Your task to perform on an android device: set the stopwatch Image 0: 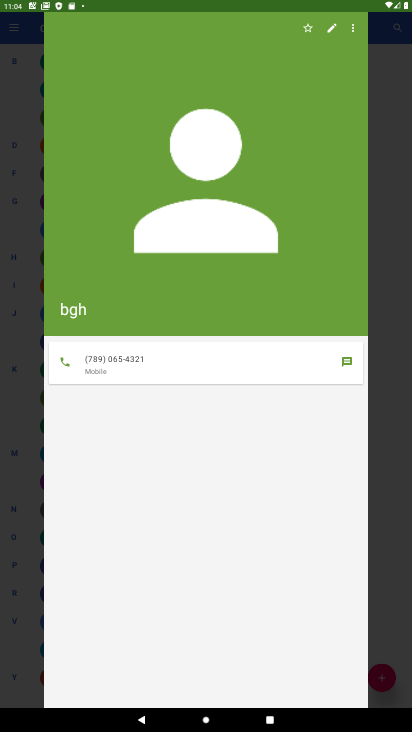
Step 0: press home button
Your task to perform on an android device: set the stopwatch Image 1: 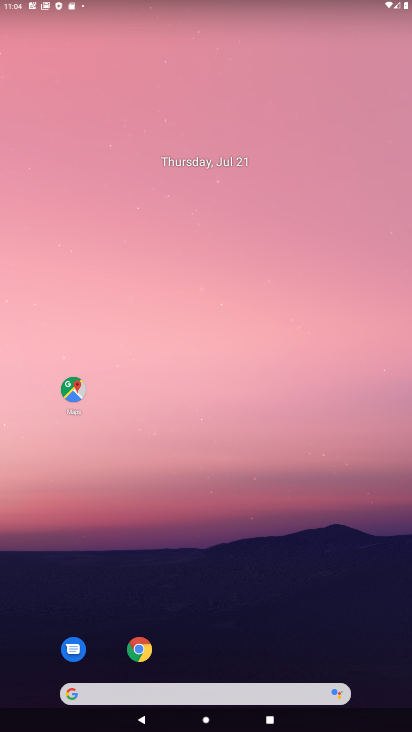
Step 1: drag from (264, 625) to (244, 35)
Your task to perform on an android device: set the stopwatch Image 2: 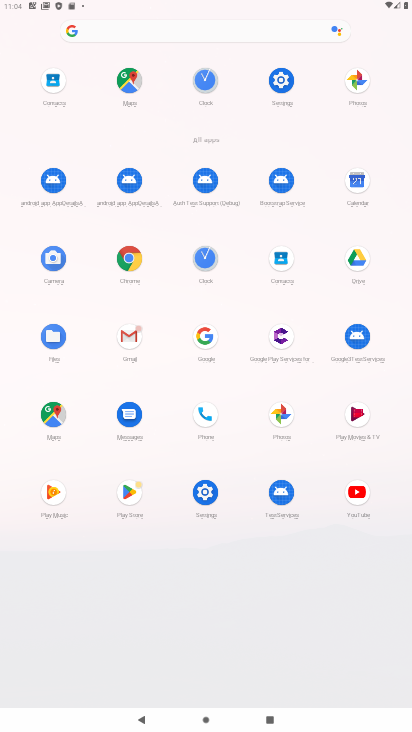
Step 2: click (203, 261)
Your task to perform on an android device: set the stopwatch Image 3: 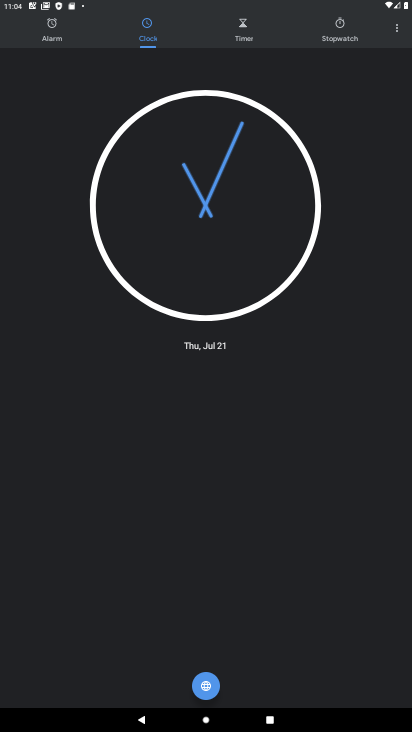
Step 3: click (338, 46)
Your task to perform on an android device: set the stopwatch Image 4: 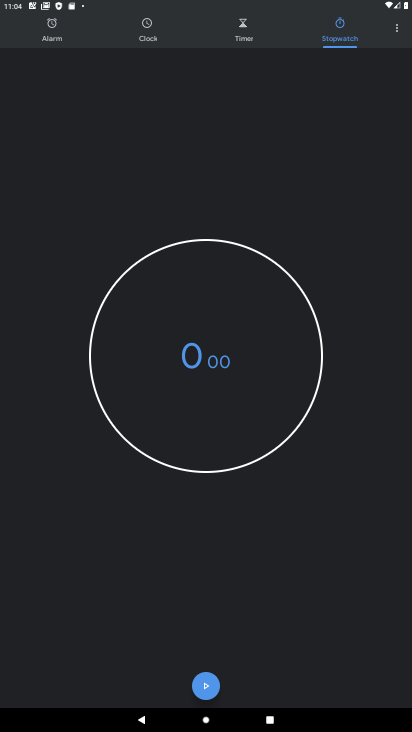
Step 4: click (197, 683)
Your task to perform on an android device: set the stopwatch Image 5: 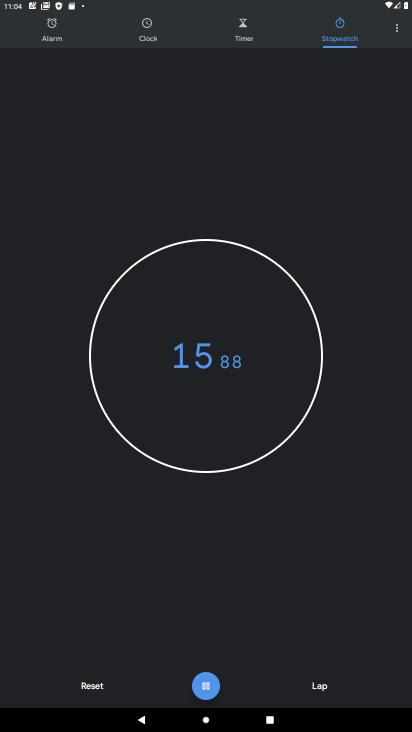
Step 5: task complete